Your task to perform on an android device: Open the calendar and show me this week's events Image 0: 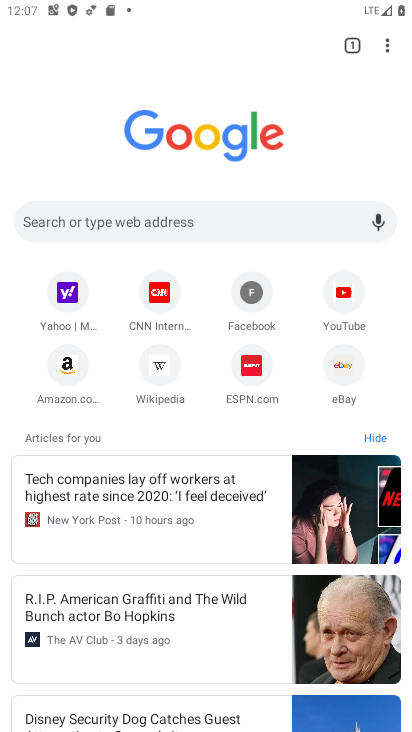
Step 0: press home button
Your task to perform on an android device: Open the calendar and show me this week's events Image 1: 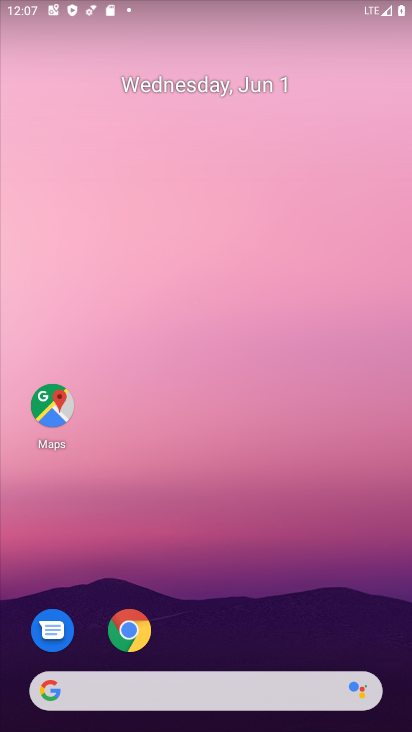
Step 1: drag from (294, 530) to (288, 124)
Your task to perform on an android device: Open the calendar and show me this week's events Image 2: 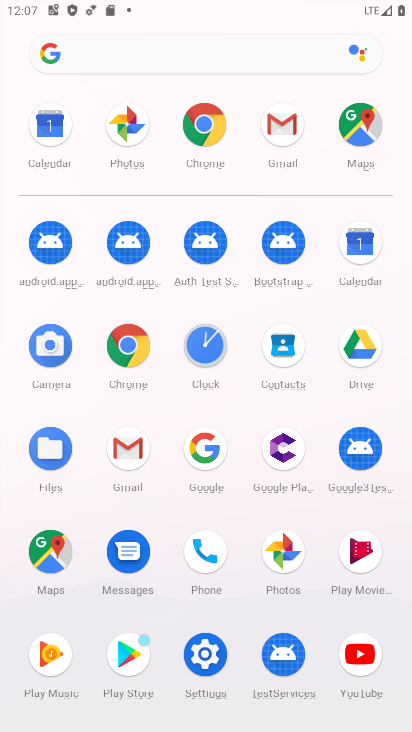
Step 2: click (362, 243)
Your task to perform on an android device: Open the calendar and show me this week's events Image 3: 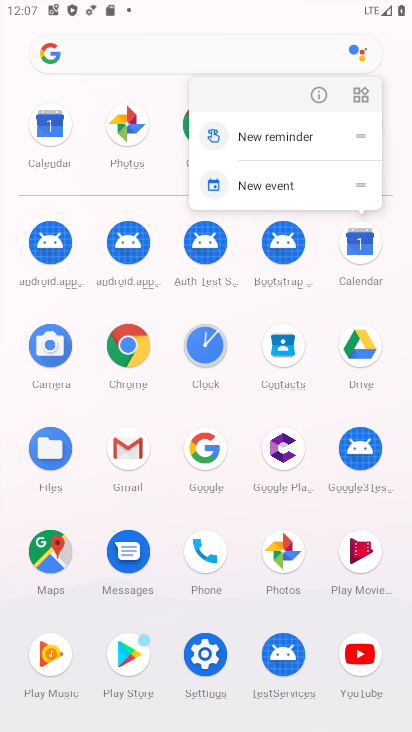
Step 3: click (356, 245)
Your task to perform on an android device: Open the calendar and show me this week's events Image 4: 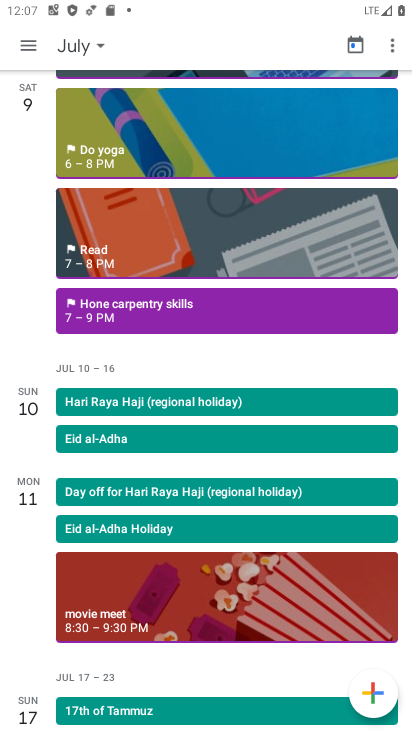
Step 4: click (29, 47)
Your task to perform on an android device: Open the calendar and show me this week's events Image 5: 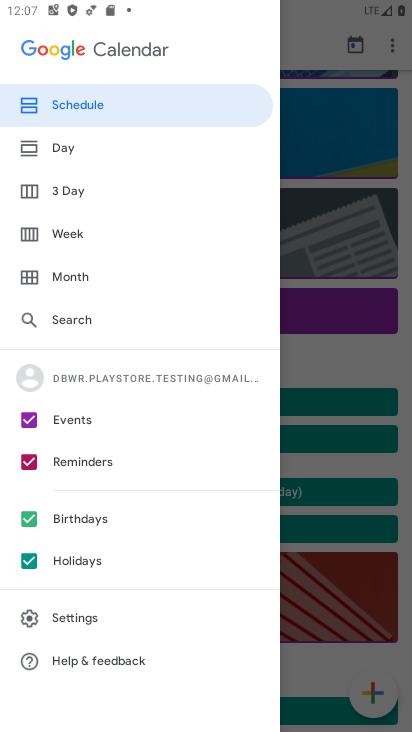
Step 5: click (76, 238)
Your task to perform on an android device: Open the calendar and show me this week's events Image 6: 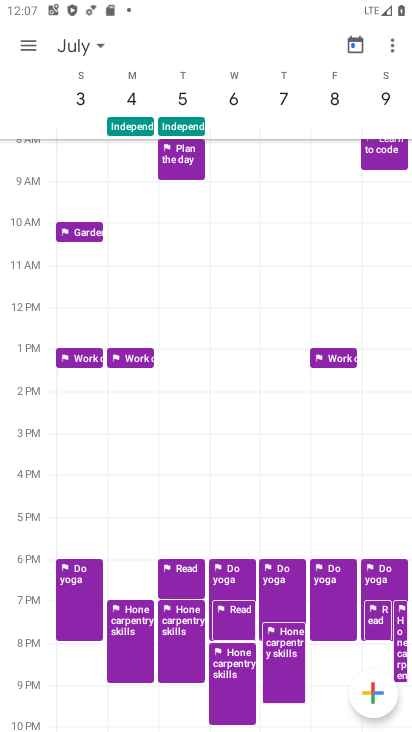
Step 6: click (27, 48)
Your task to perform on an android device: Open the calendar and show me this week's events Image 7: 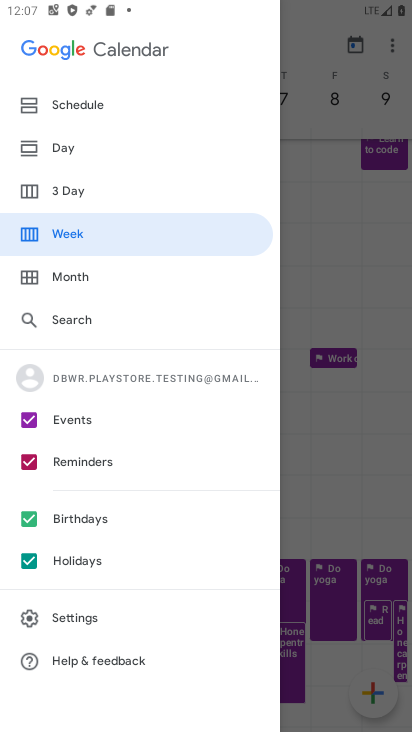
Step 7: click (85, 274)
Your task to perform on an android device: Open the calendar and show me this week's events Image 8: 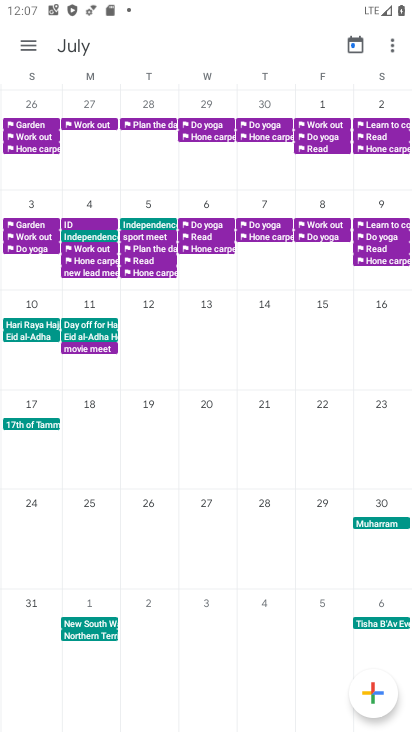
Step 8: drag from (221, 306) to (398, 324)
Your task to perform on an android device: Open the calendar and show me this week's events Image 9: 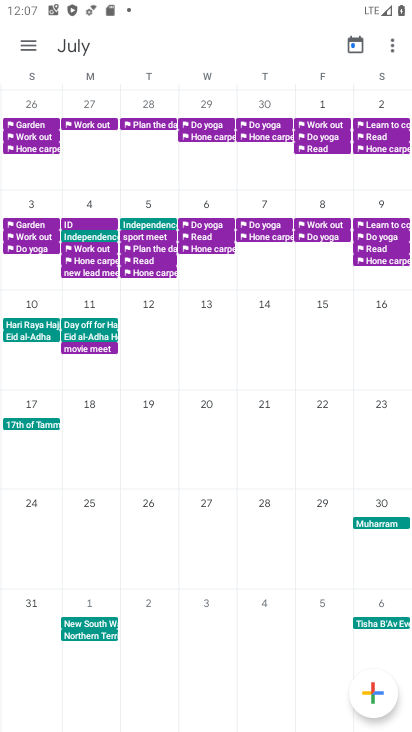
Step 9: drag from (77, 196) to (387, 255)
Your task to perform on an android device: Open the calendar and show me this week's events Image 10: 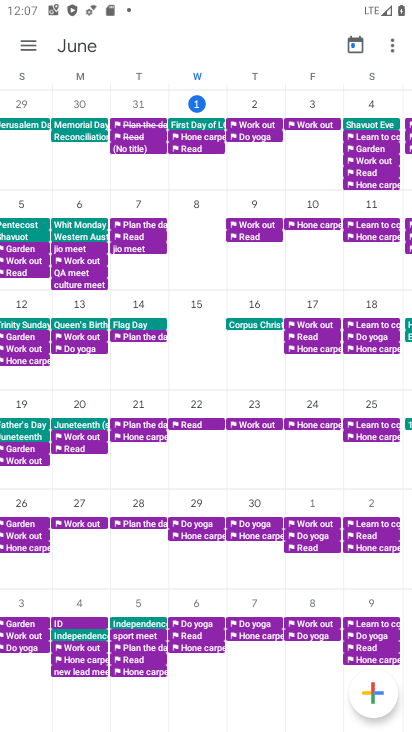
Step 10: click (27, 48)
Your task to perform on an android device: Open the calendar and show me this week's events Image 11: 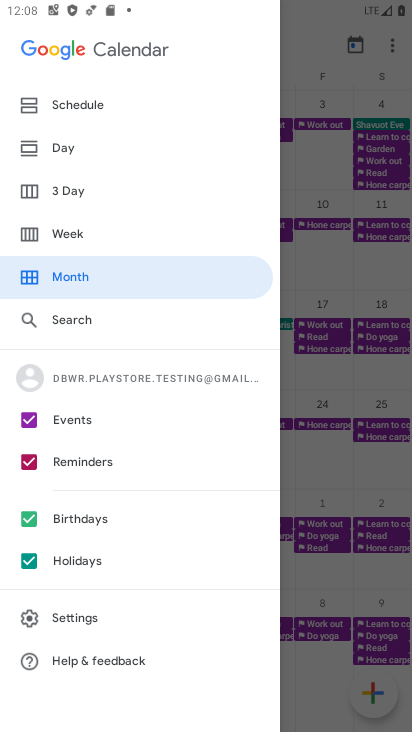
Step 11: click (84, 240)
Your task to perform on an android device: Open the calendar and show me this week's events Image 12: 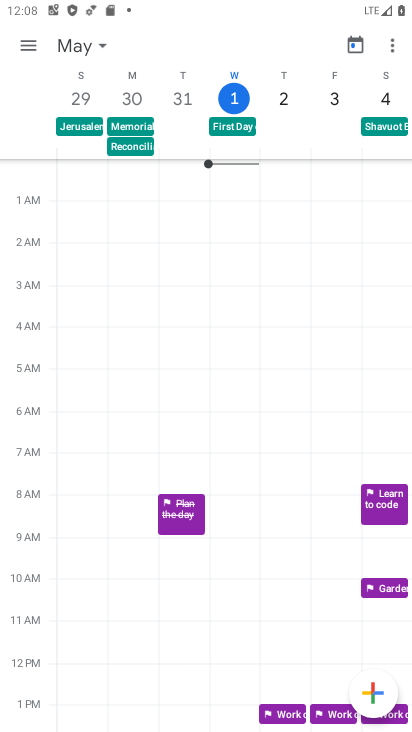
Step 12: task complete